Your task to perform on an android device: see sites visited before in the chrome app Image 0: 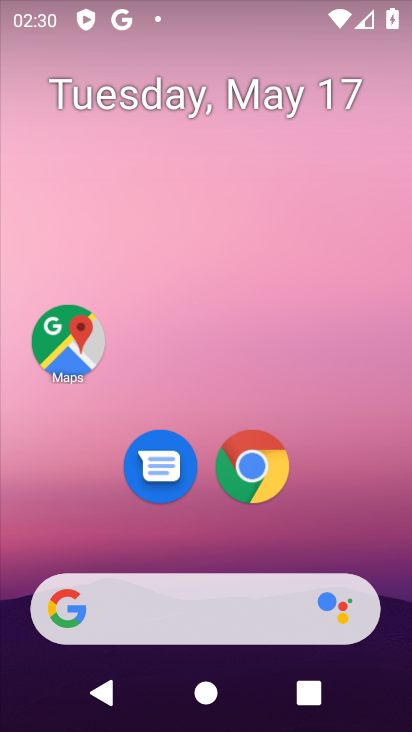
Step 0: click (245, 465)
Your task to perform on an android device: see sites visited before in the chrome app Image 1: 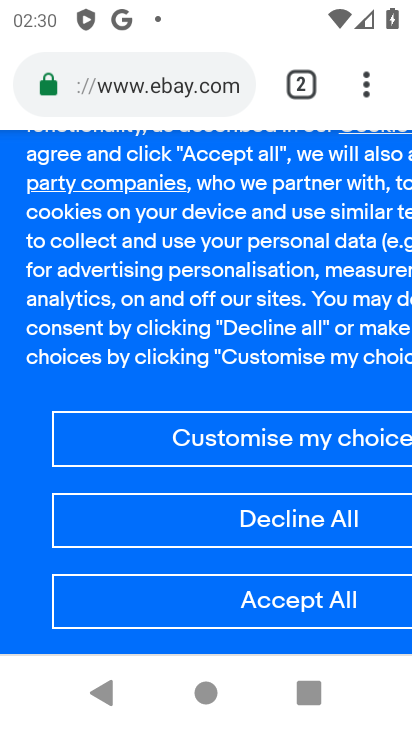
Step 1: task complete